Your task to perform on an android device: toggle notifications settings in the gmail app Image 0: 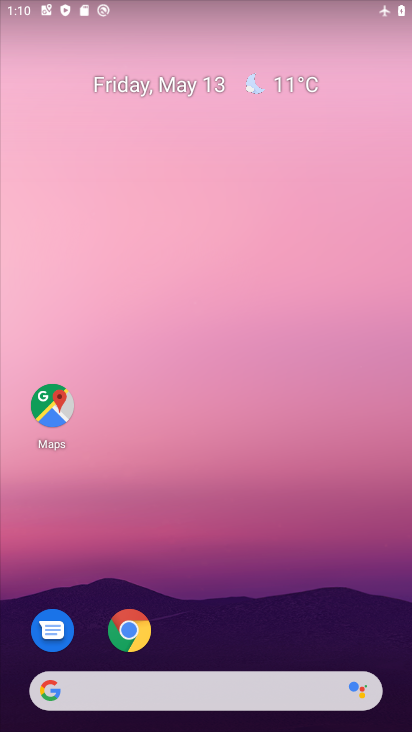
Step 0: drag from (345, 576) to (341, 16)
Your task to perform on an android device: toggle notifications settings in the gmail app Image 1: 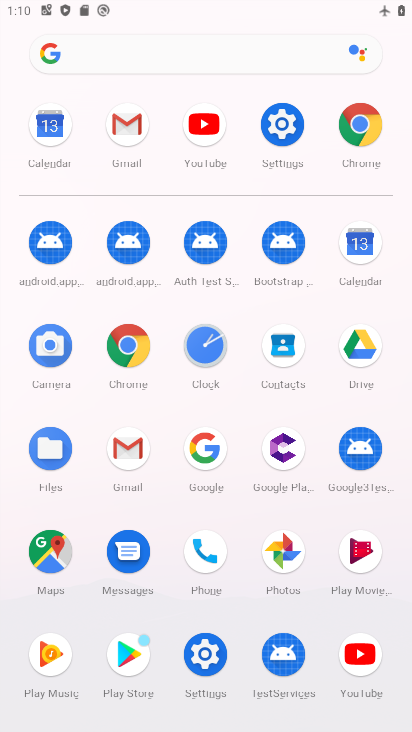
Step 1: click (123, 135)
Your task to perform on an android device: toggle notifications settings in the gmail app Image 2: 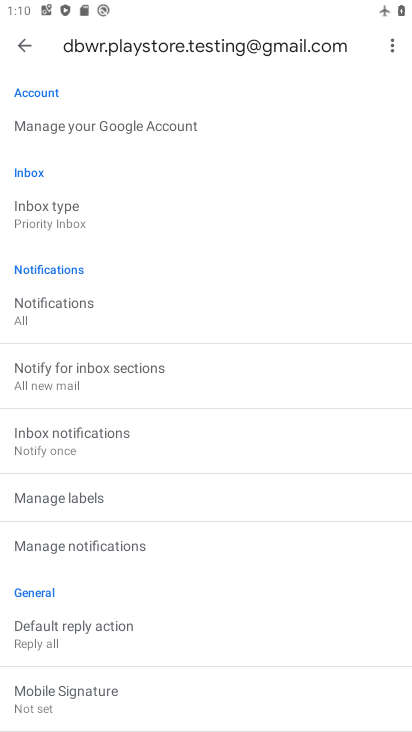
Step 2: click (22, 53)
Your task to perform on an android device: toggle notifications settings in the gmail app Image 3: 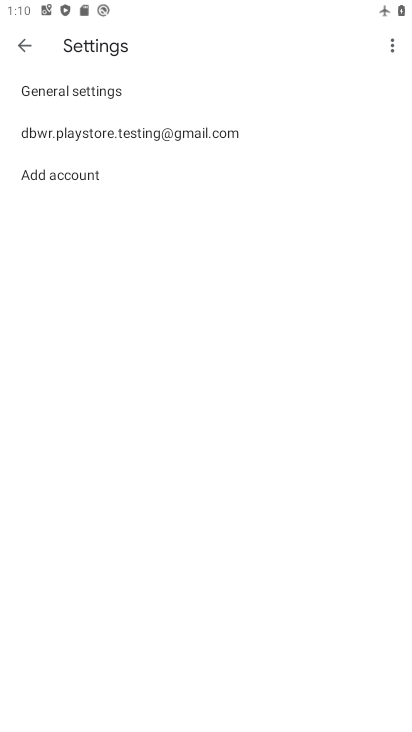
Step 3: click (59, 95)
Your task to perform on an android device: toggle notifications settings in the gmail app Image 4: 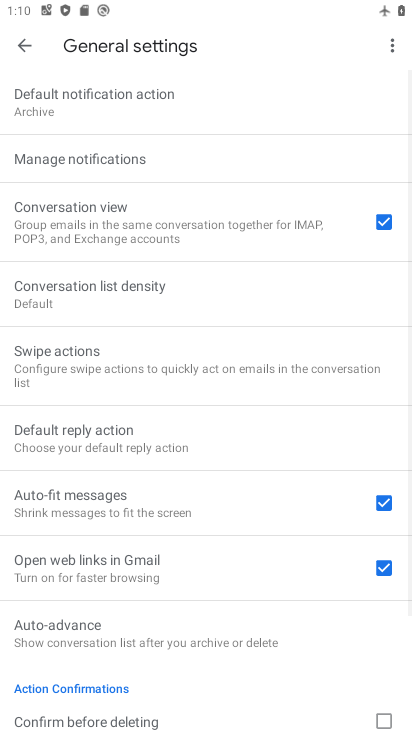
Step 4: click (77, 163)
Your task to perform on an android device: toggle notifications settings in the gmail app Image 5: 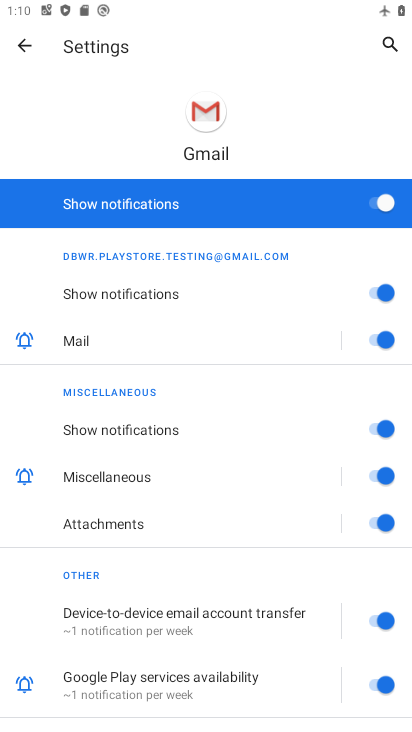
Step 5: click (395, 207)
Your task to perform on an android device: toggle notifications settings in the gmail app Image 6: 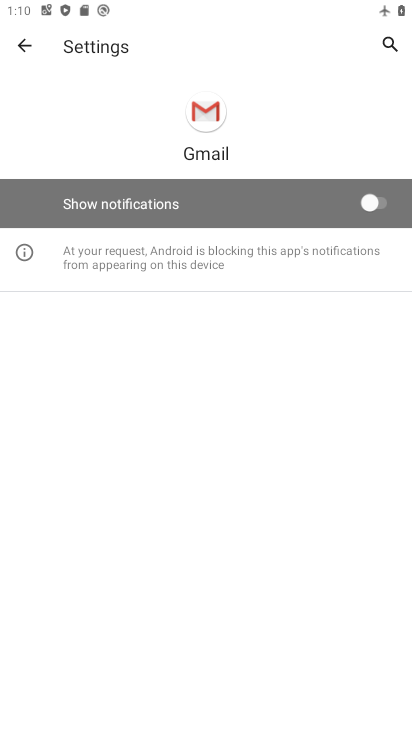
Step 6: task complete